Your task to perform on an android device: Open my contact list Image 0: 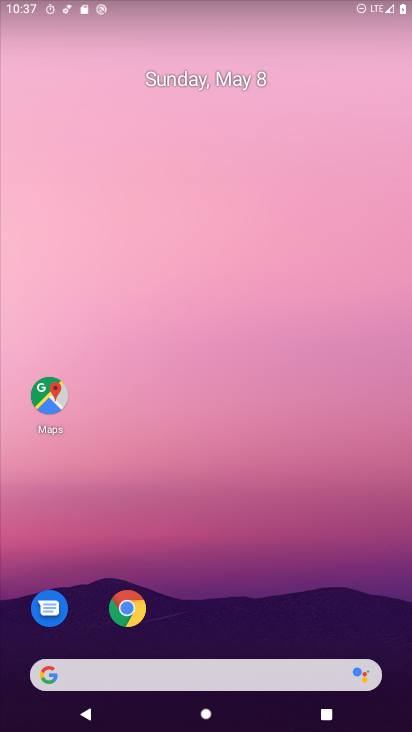
Step 0: drag from (225, 610) to (267, 259)
Your task to perform on an android device: Open my contact list Image 1: 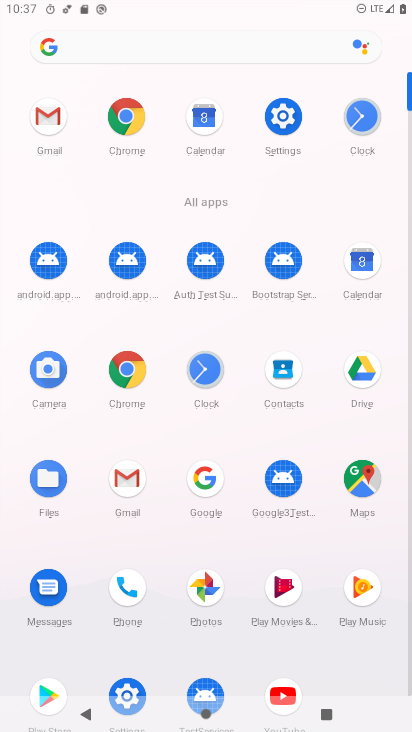
Step 1: click (276, 370)
Your task to perform on an android device: Open my contact list Image 2: 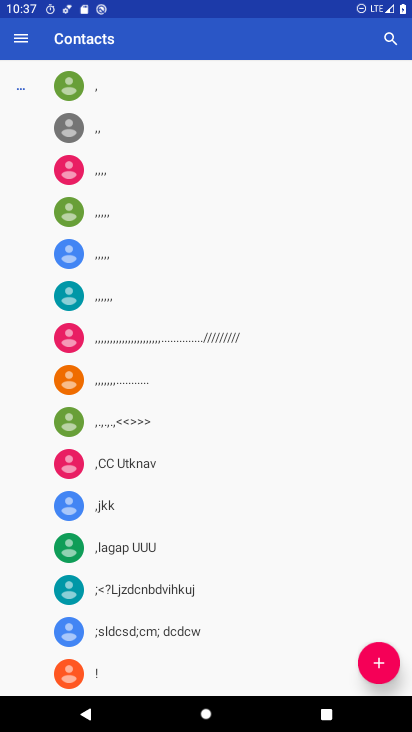
Step 2: task complete